Your task to perform on an android device: add a contact in the contacts app Image 0: 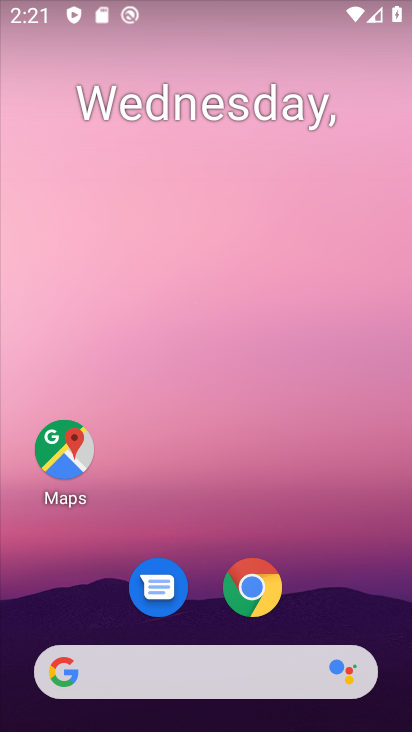
Step 0: drag from (372, 625) to (310, 303)
Your task to perform on an android device: add a contact in the contacts app Image 1: 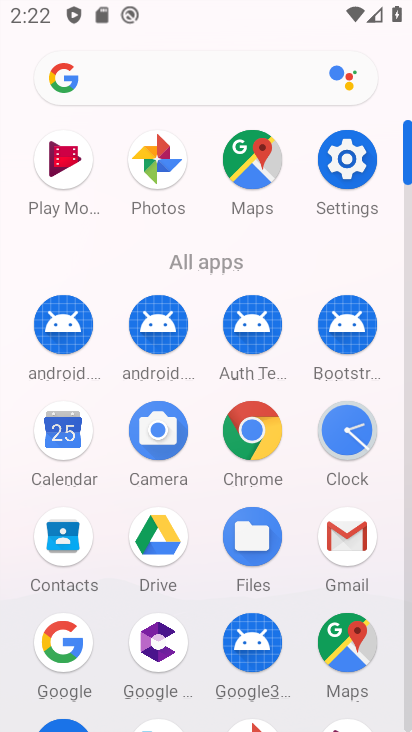
Step 1: click (71, 535)
Your task to perform on an android device: add a contact in the contacts app Image 2: 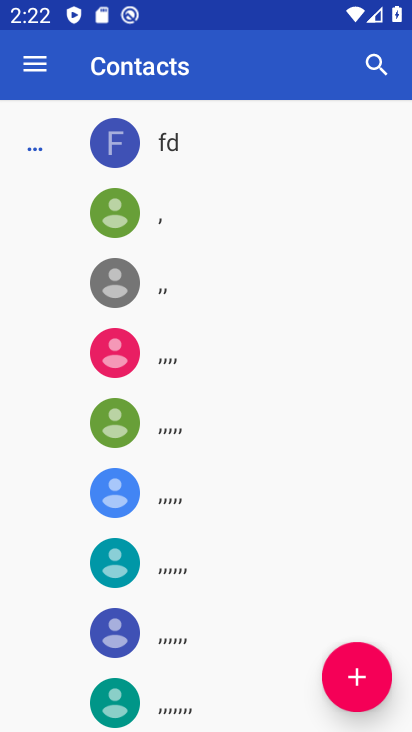
Step 2: click (371, 685)
Your task to perform on an android device: add a contact in the contacts app Image 3: 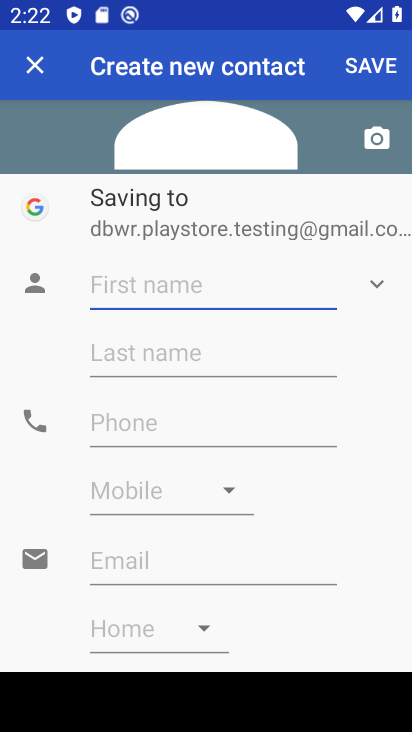
Step 3: type "b  hbjh"
Your task to perform on an android device: add a contact in the contacts app Image 4: 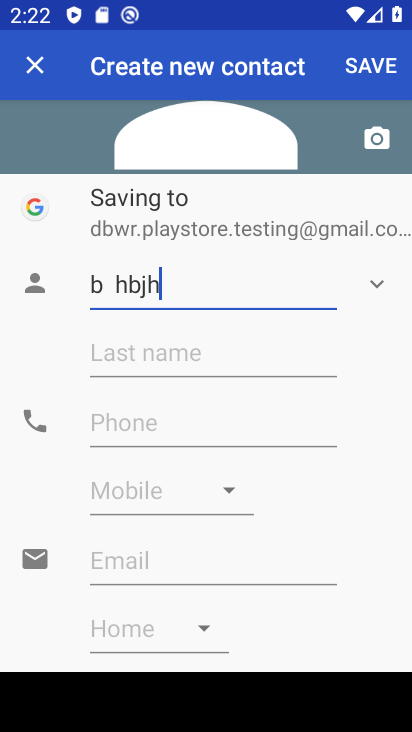
Step 4: click (291, 414)
Your task to perform on an android device: add a contact in the contacts app Image 5: 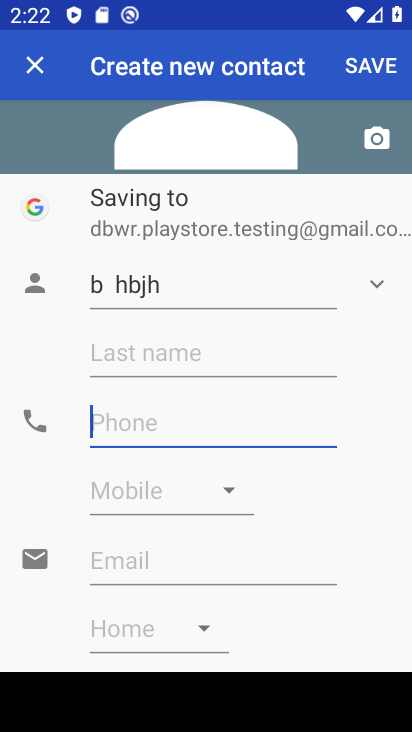
Step 5: type "788998989"
Your task to perform on an android device: add a contact in the contacts app Image 6: 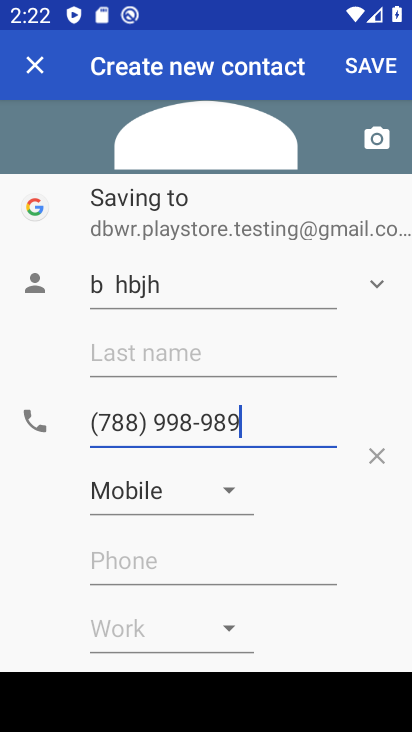
Step 6: click (385, 71)
Your task to perform on an android device: add a contact in the contacts app Image 7: 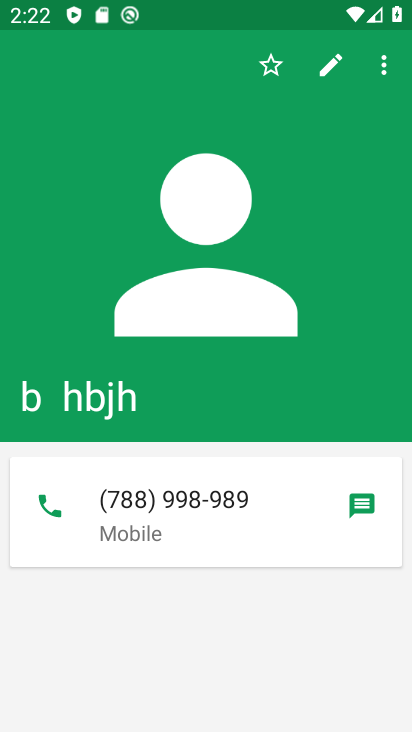
Step 7: task complete